Your task to perform on an android device: Open Google Chrome Image 0: 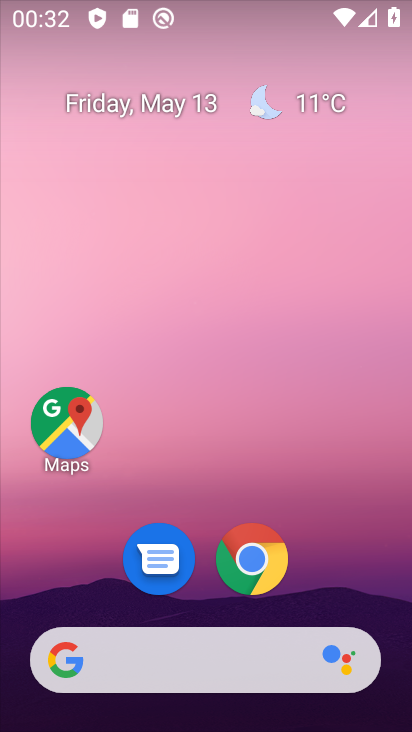
Step 0: click (249, 556)
Your task to perform on an android device: Open Google Chrome Image 1: 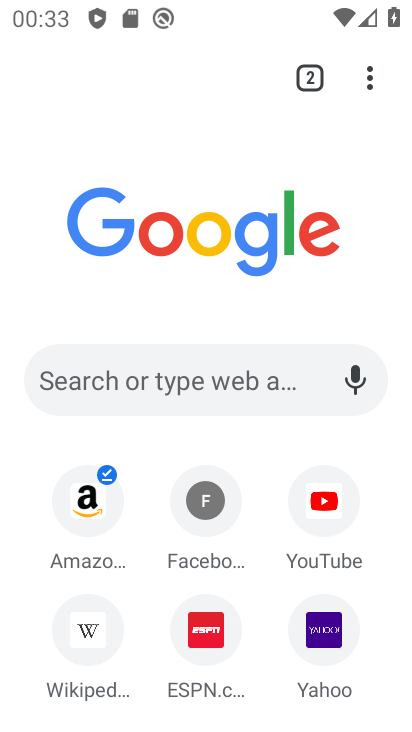
Step 1: task complete